Your task to perform on an android device: visit the assistant section in the google photos Image 0: 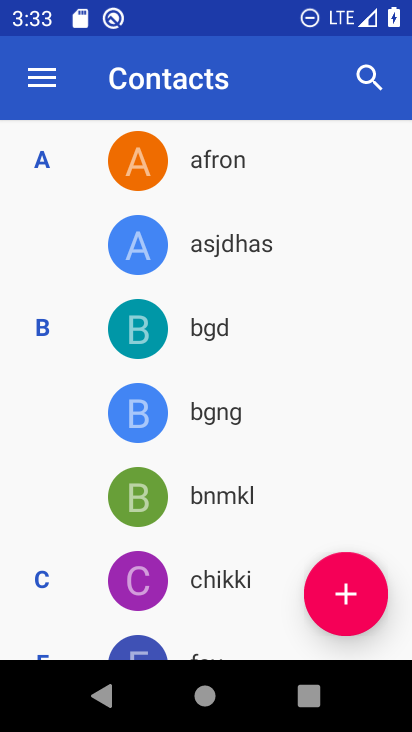
Step 0: press back button
Your task to perform on an android device: visit the assistant section in the google photos Image 1: 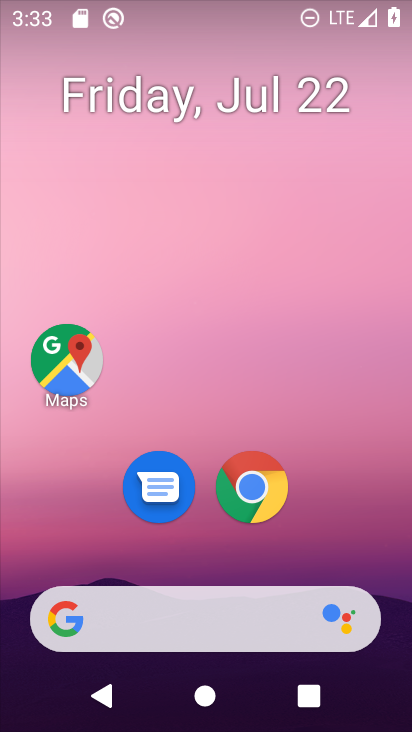
Step 1: drag from (150, 532) to (226, 82)
Your task to perform on an android device: visit the assistant section in the google photos Image 2: 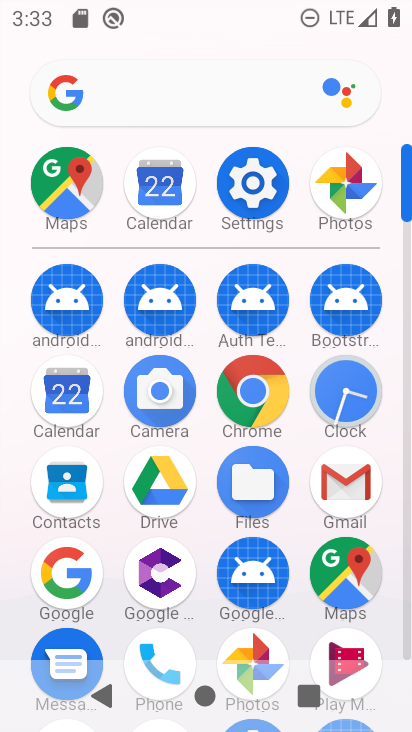
Step 2: click (259, 629)
Your task to perform on an android device: visit the assistant section in the google photos Image 3: 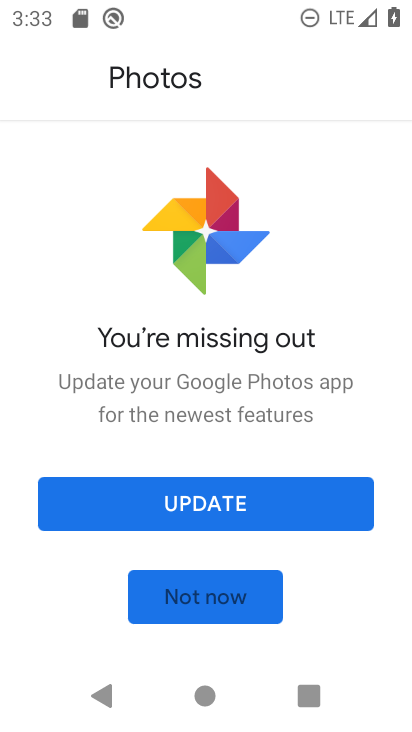
Step 3: click (223, 593)
Your task to perform on an android device: visit the assistant section in the google photos Image 4: 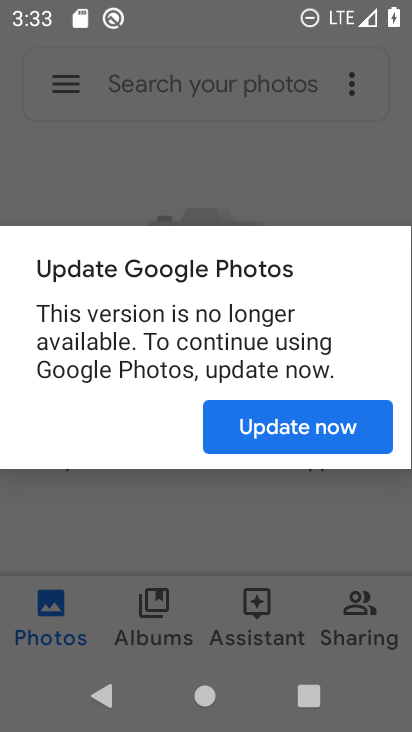
Step 4: click (283, 417)
Your task to perform on an android device: visit the assistant section in the google photos Image 5: 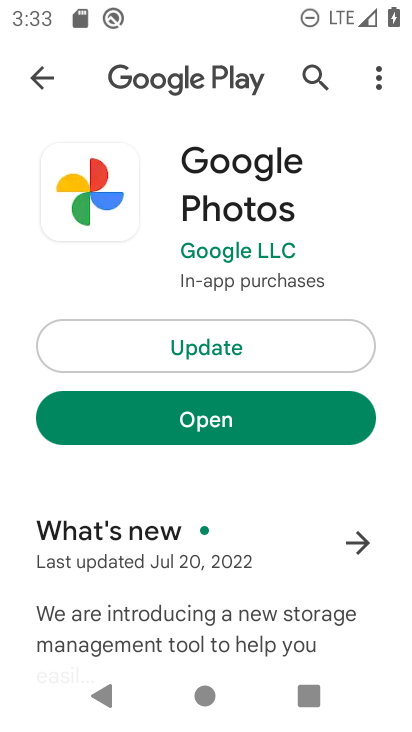
Step 5: click (206, 425)
Your task to perform on an android device: visit the assistant section in the google photos Image 6: 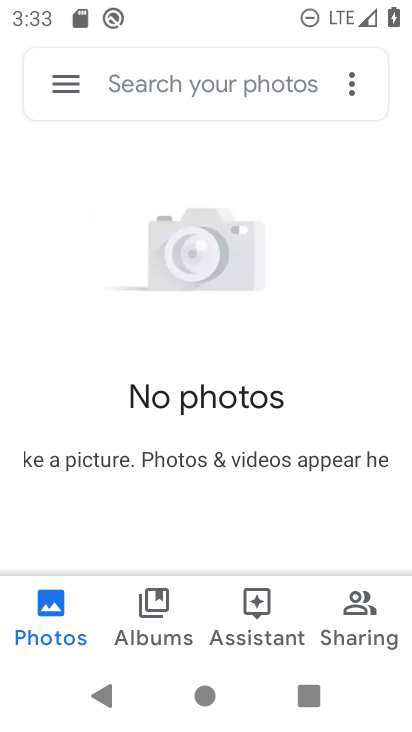
Step 6: click (257, 601)
Your task to perform on an android device: visit the assistant section in the google photos Image 7: 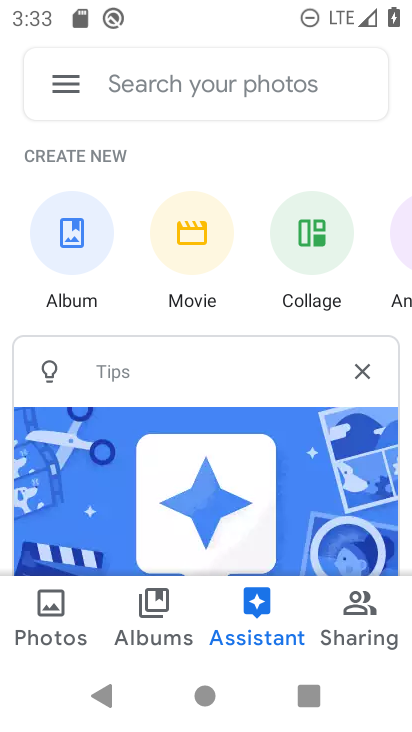
Step 7: task complete